Your task to perform on an android device: What's on the menu at Taco Bell? Image 0: 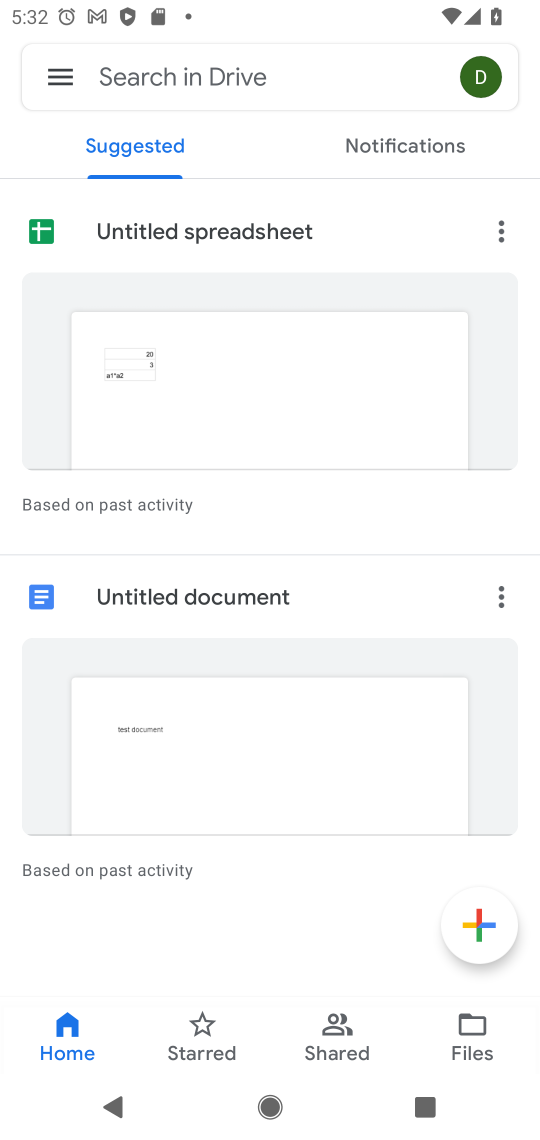
Step 0: press home button
Your task to perform on an android device: What's on the menu at Taco Bell? Image 1: 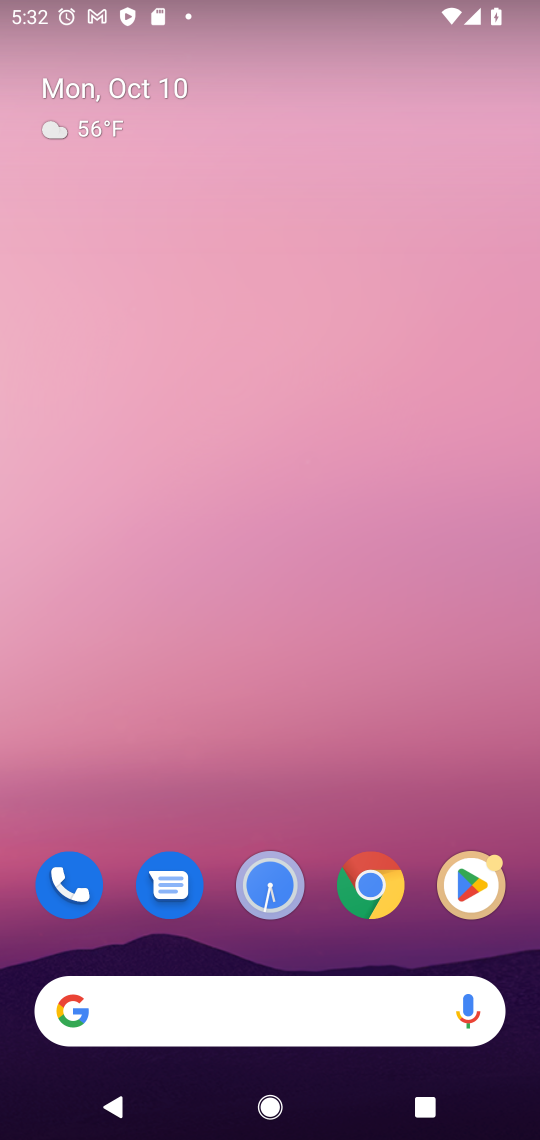
Step 1: click (219, 1008)
Your task to perform on an android device: What's on the menu at Taco Bell? Image 2: 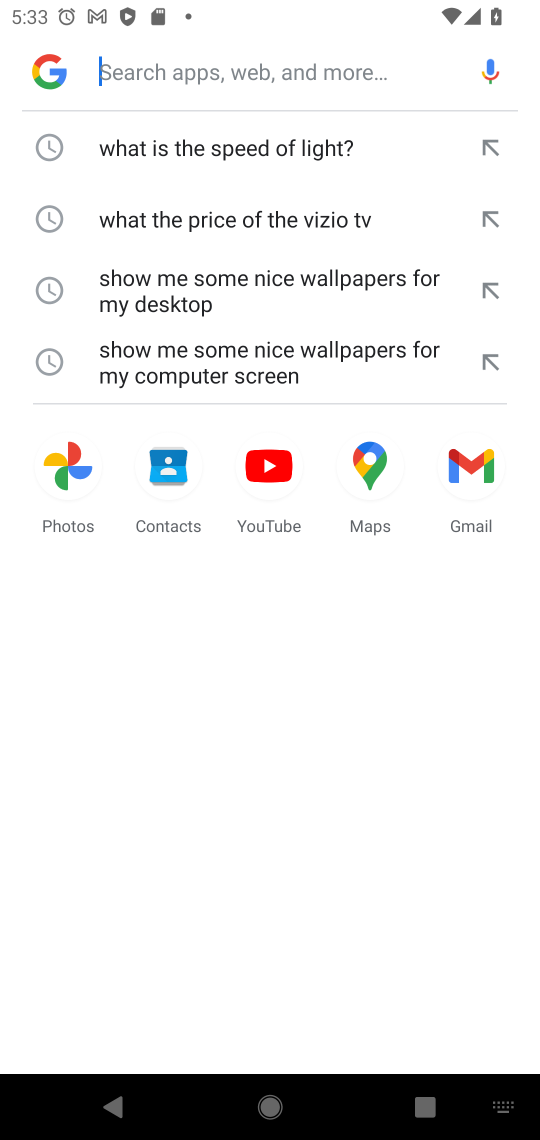
Step 2: type "What's on the menu at Taco Bell?"
Your task to perform on an android device: What's on the menu at Taco Bell? Image 3: 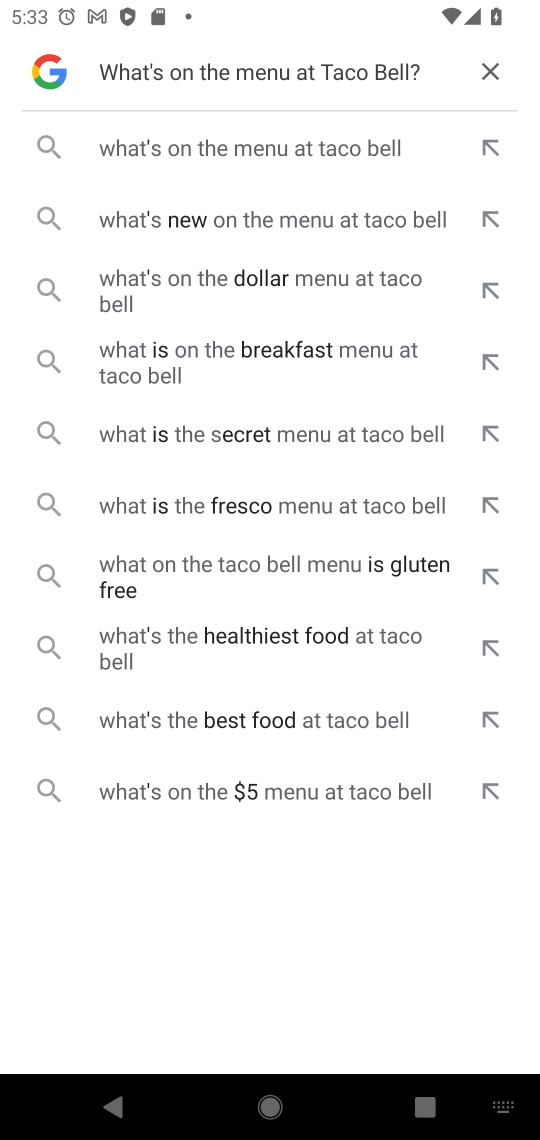
Step 3: click (193, 140)
Your task to perform on an android device: What's on the menu at Taco Bell? Image 4: 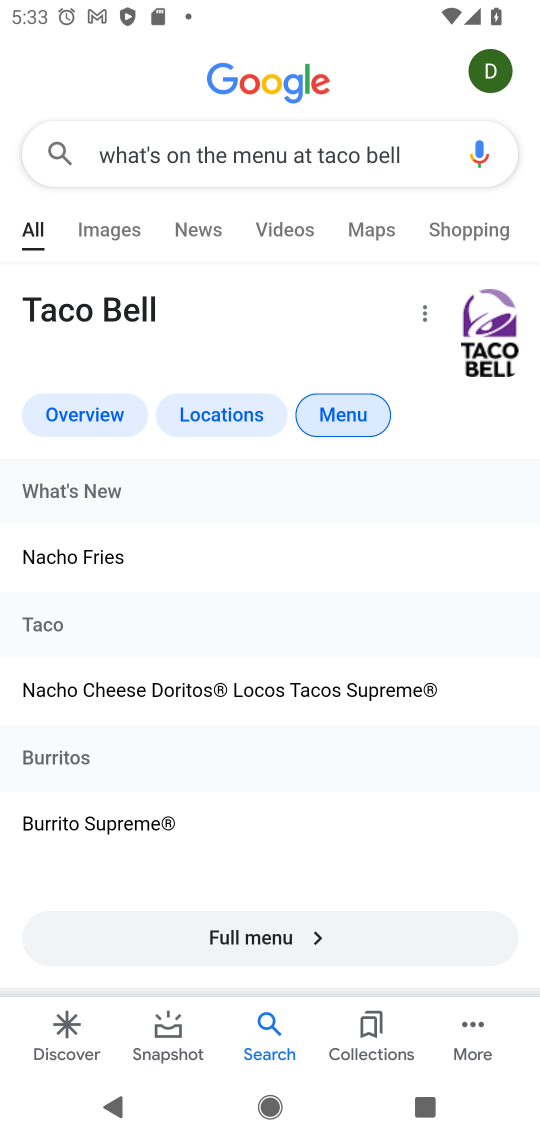
Step 4: task complete